Your task to perform on an android device: Open Android settings Image 0: 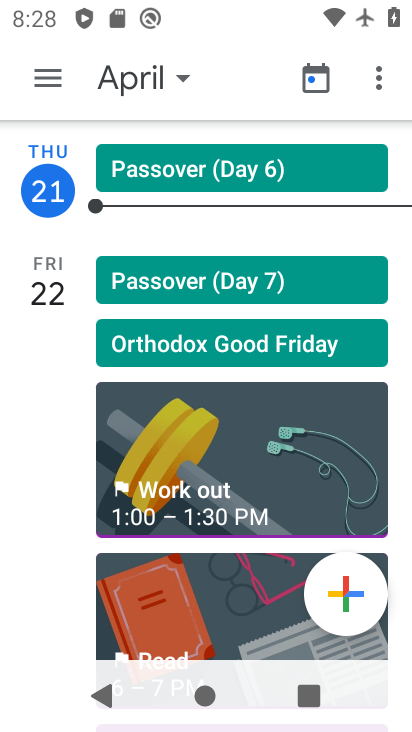
Step 0: press home button
Your task to perform on an android device: Open Android settings Image 1: 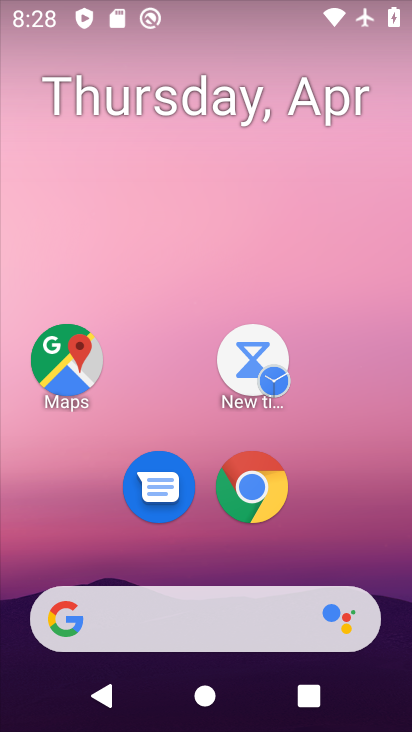
Step 1: drag from (334, 529) to (309, 138)
Your task to perform on an android device: Open Android settings Image 2: 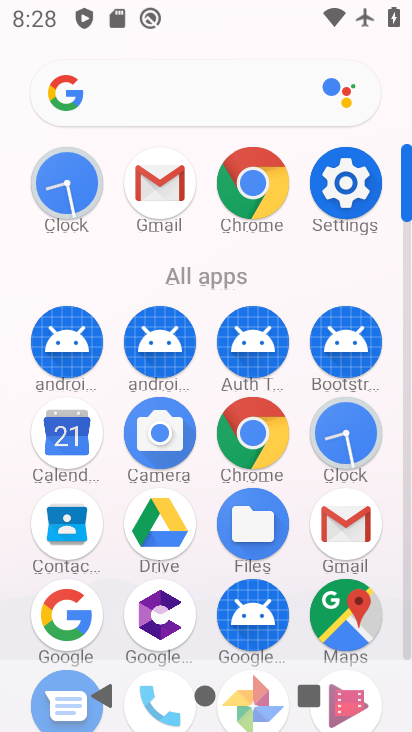
Step 2: click (344, 184)
Your task to perform on an android device: Open Android settings Image 3: 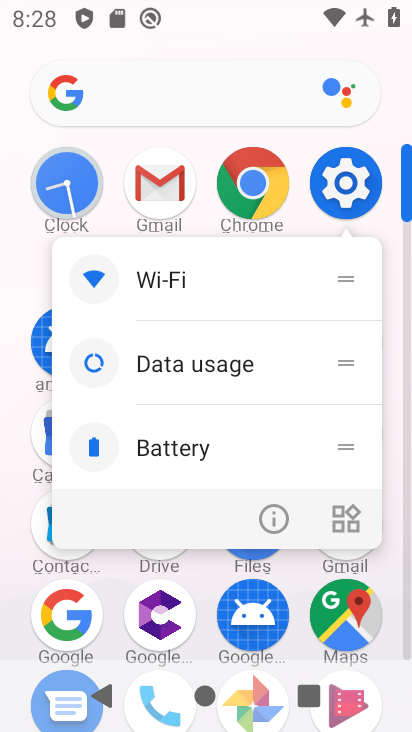
Step 3: click (344, 184)
Your task to perform on an android device: Open Android settings Image 4: 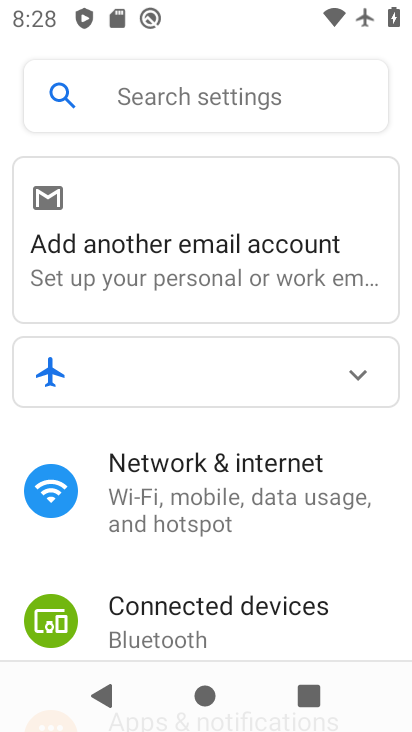
Step 4: drag from (299, 530) to (303, 128)
Your task to perform on an android device: Open Android settings Image 5: 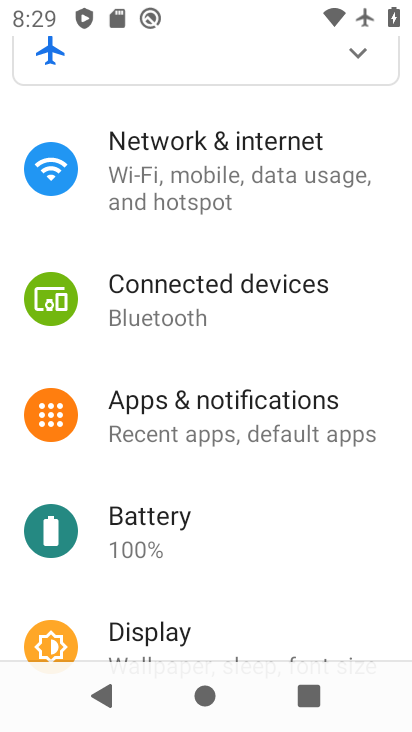
Step 5: drag from (298, 595) to (322, 115)
Your task to perform on an android device: Open Android settings Image 6: 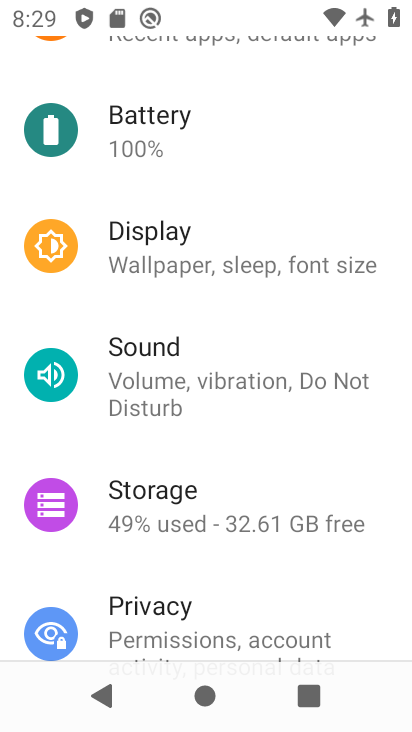
Step 6: drag from (324, 510) to (307, 133)
Your task to perform on an android device: Open Android settings Image 7: 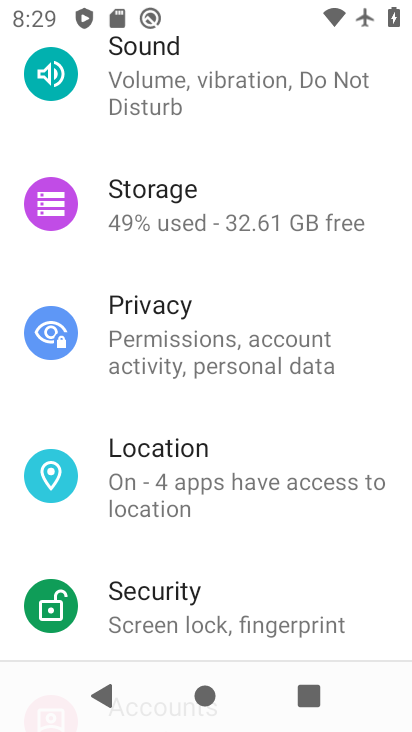
Step 7: drag from (265, 594) to (288, 193)
Your task to perform on an android device: Open Android settings Image 8: 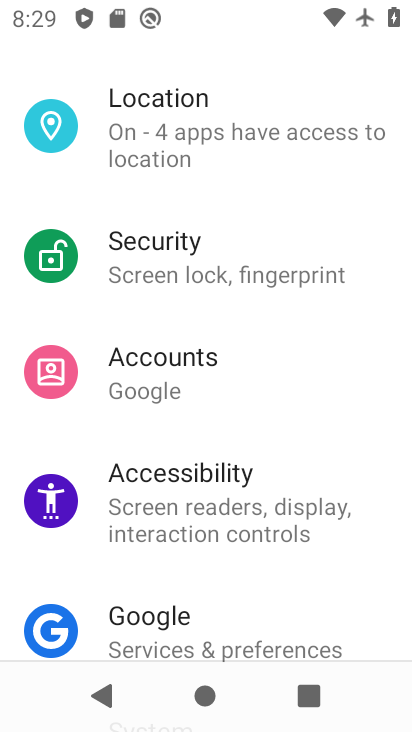
Step 8: drag from (323, 502) to (330, 144)
Your task to perform on an android device: Open Android settings Image 9: 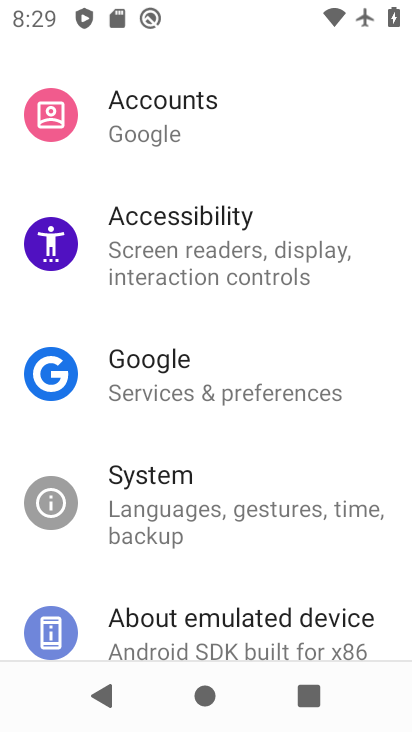
Step 9: click (315, 613)
Your task to perform on an android device: Open Android settings Image 10: 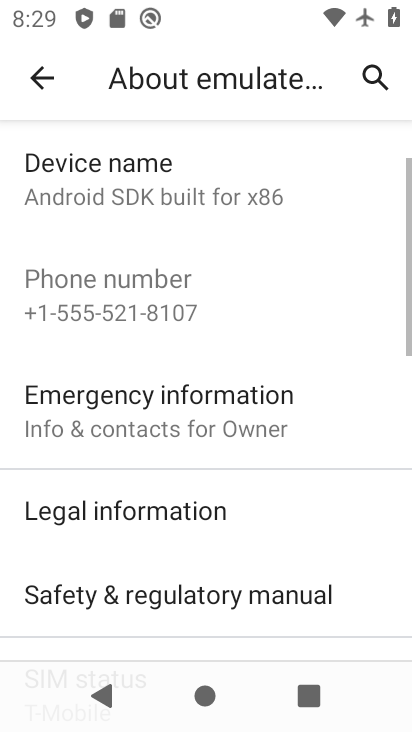
Step 10: task complete